Your task to perform on an android device: set the timer Image 0: 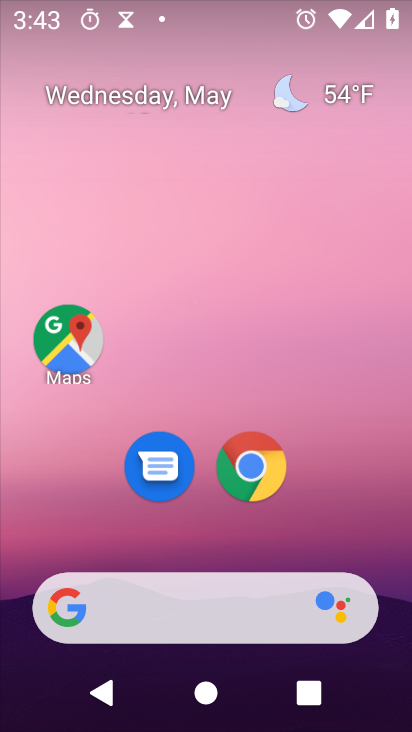
Step 0: drag from (374, 526) to (243, 80)
Your task to perform on an android device: set the timer Image 1: 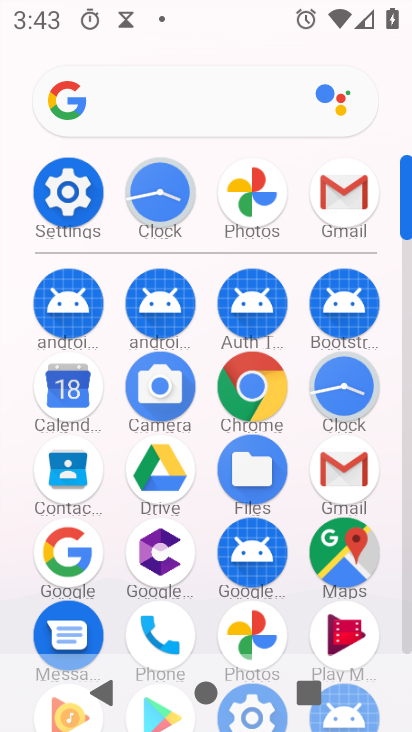
Step 1: click (151, 203)
Your task to perform on an android device: set the timer Image 2: 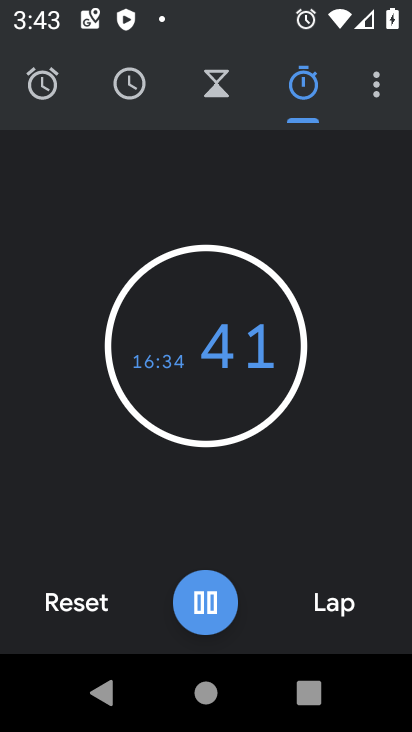
Step 2: click (212, 109)
Your task to perform on an android device: set the timer Image 3: 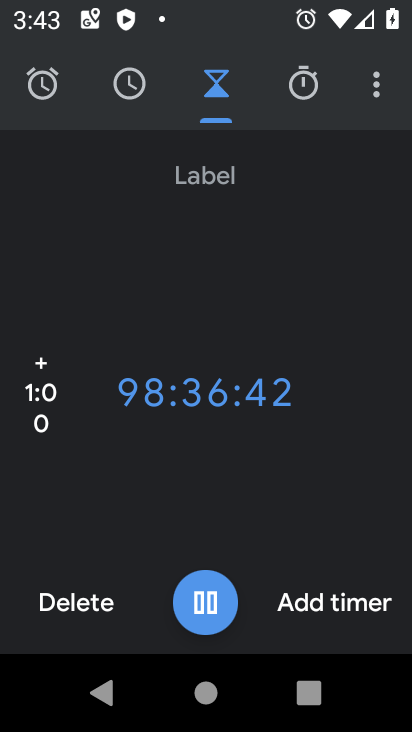
Step 3: task complete